Your task to perform on an android device: open chrome privacy settings Image 0: 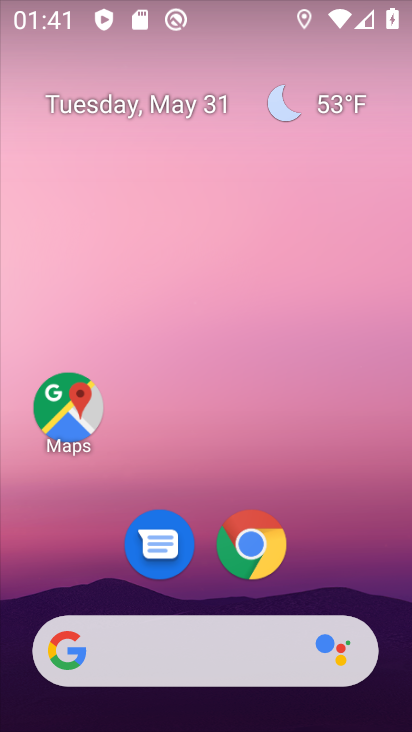
Step 0: click (258, 521)
Your task to perform on an android device: open chrome privacy settings Image 1: 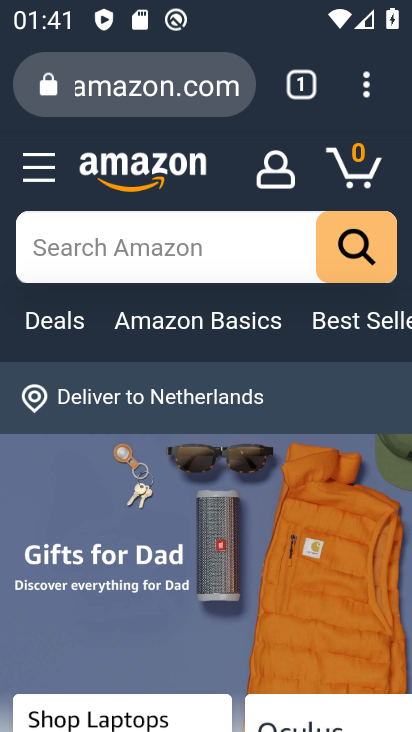
Step 1: click (366, 90)
Your task to perform on an android device: open chrome privacy settings Image 2: 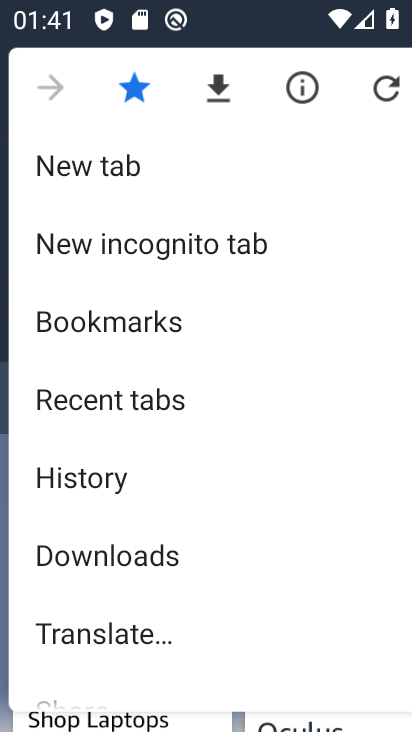
Step 2: drag from (283, 614) to (262, 335)
Your task to perform on an android device: open chrome privacy settings Image 3: 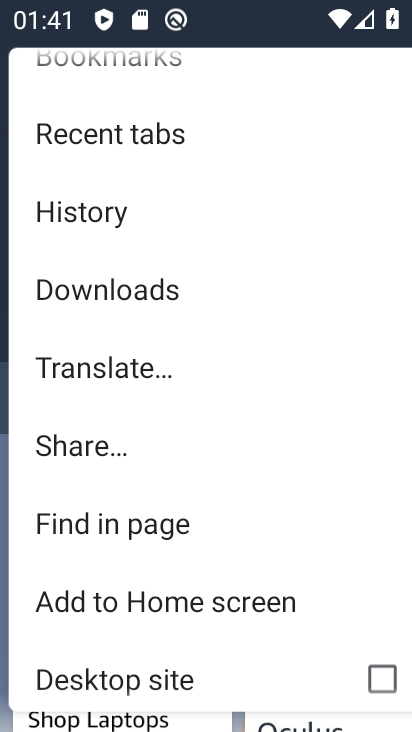
Step 3: drag from (270, 636) to (253, 332)
Your task to perform on an android device: open chrome privacy settings Image 4: 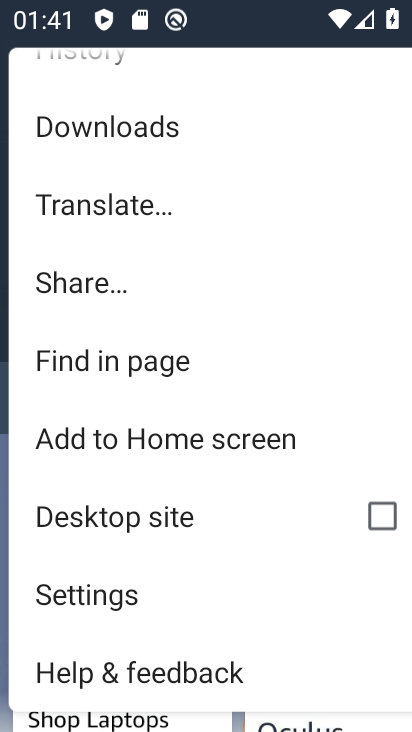
Step 4: click (210, 602)
Your task to perform on an android device: open chrome privacy settings Image 5: 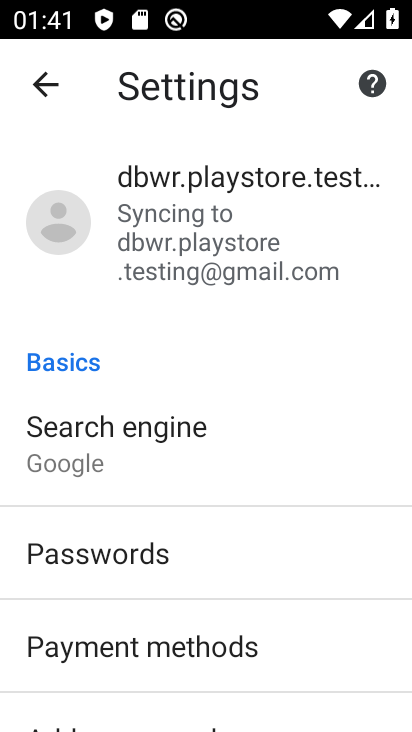
Step 5: drag from (208, 627) to (185, 359)
Your task to perform on an android device: open chrome privacy settings Image 6: 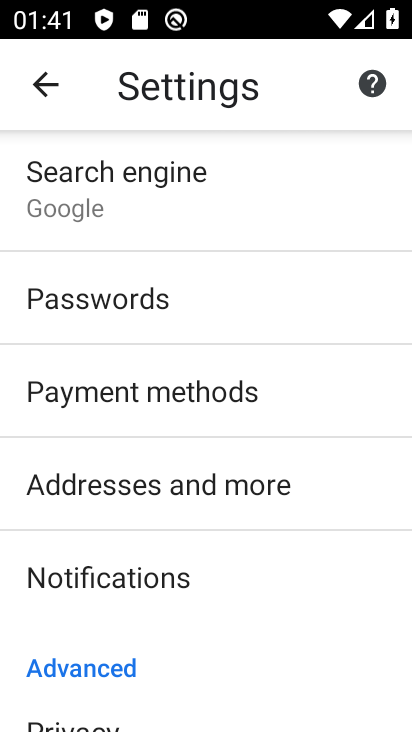
Step 6: drag from (181, 679) to (168, 431)
Your task to perform on an android device: open chrome privacy settings Image 7: 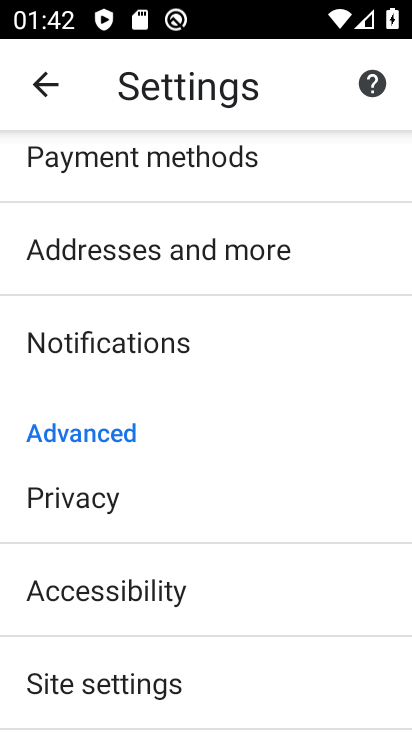
Step 7: click (121, 490)
Your task to perform on an android device: open chrome privacy settings Image 8: 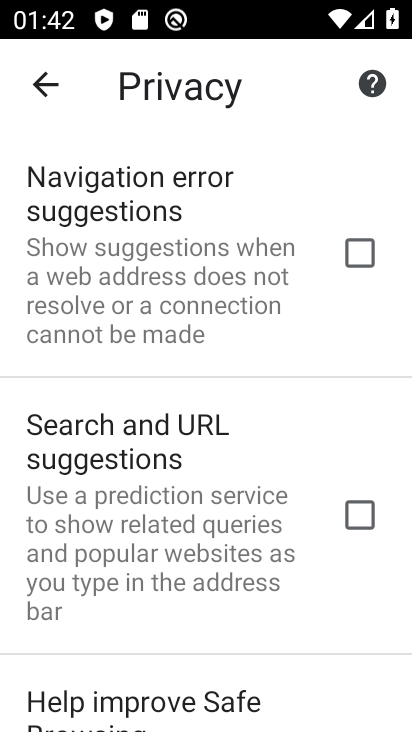
Step 8: task complete